Your task to perform on an android device: Check the weather Image 0: 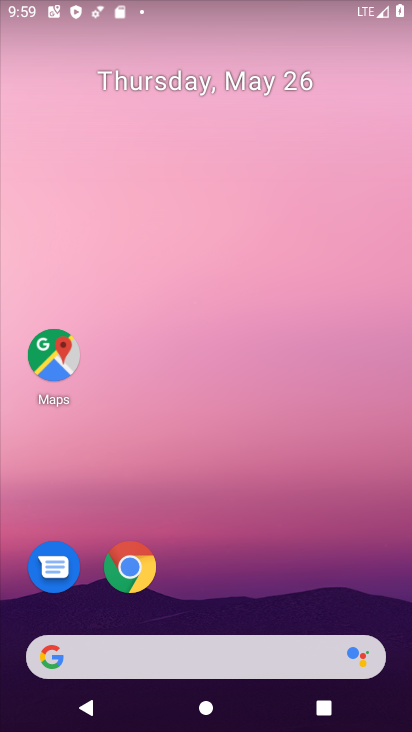
Step 0: click (272, 652)
Your task to perform on an android device: Check the weather Image 1: 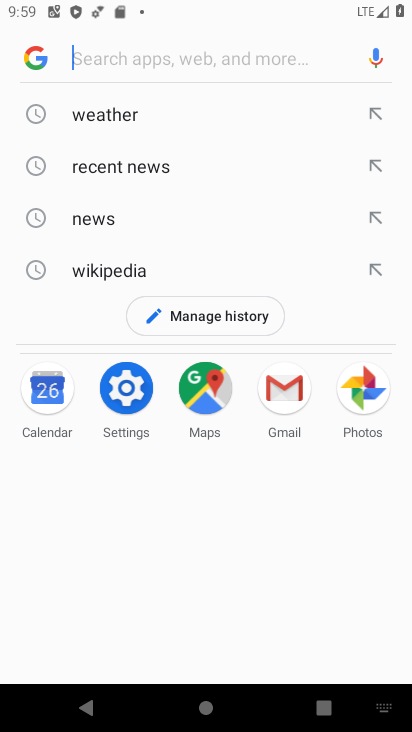
Step 1: click (113, 107)
Your task to perform on an android device: Check the weather Image 2: 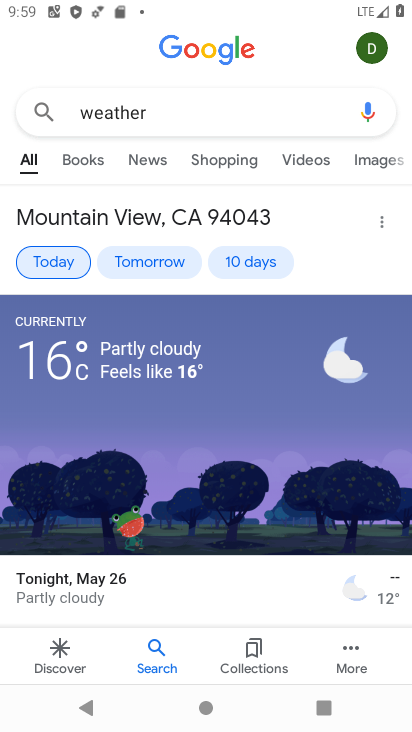
Step 2: task complete